Your task to perform on an android device: uninstall "Cash App" Image 0: 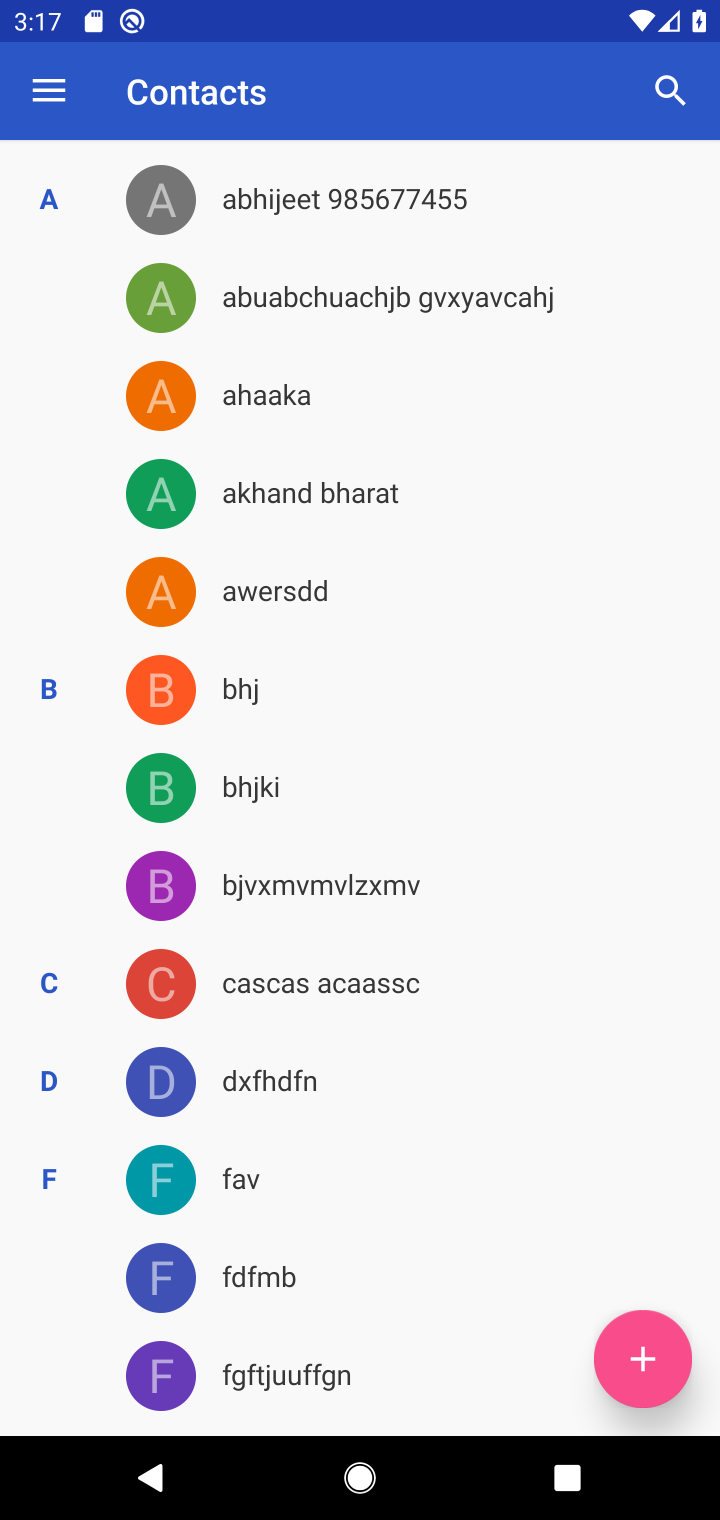
Step 0: press home button
Your task to perform on an android device: uninstall "Cash App" Image 1: 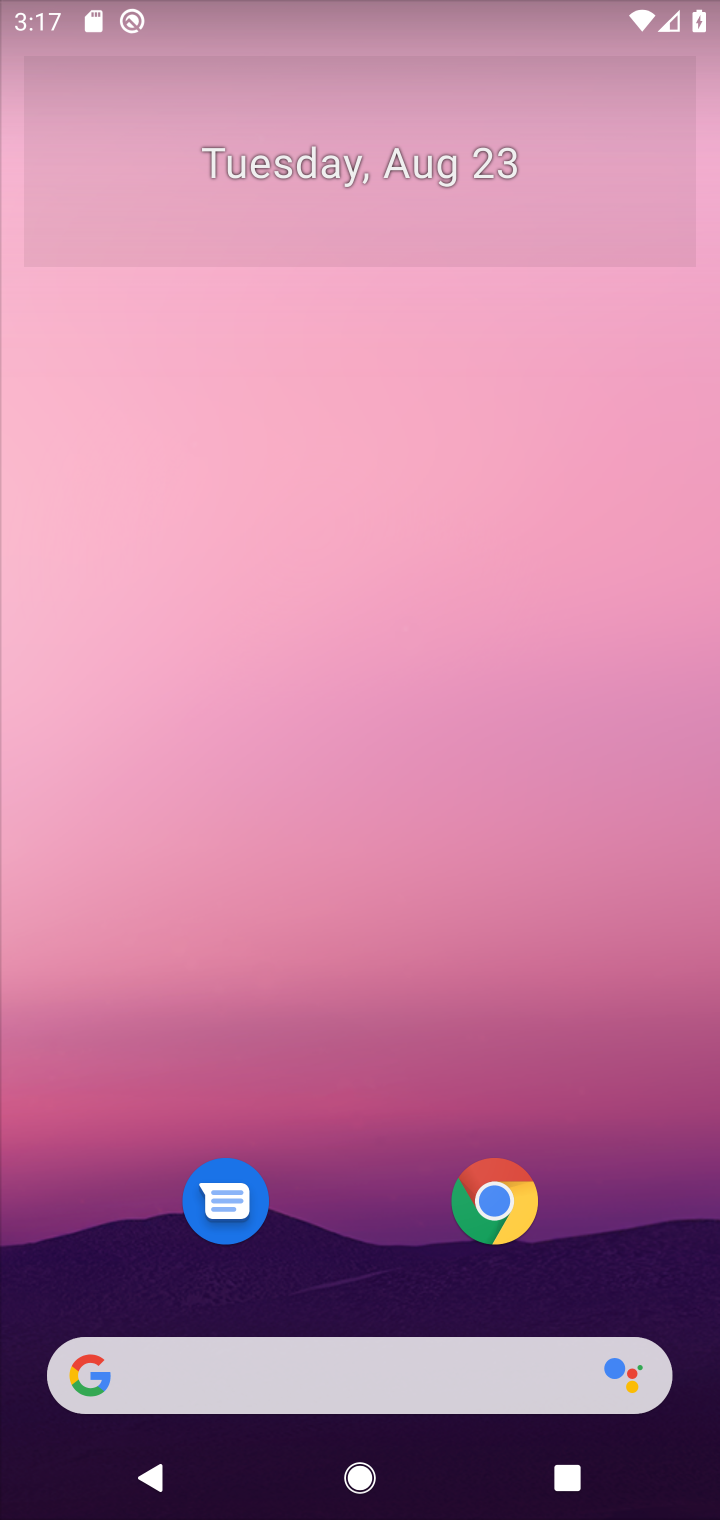
Step 1: drag from (659, 1302) to (525, 231)
Your task to perform on an android device: uninstall "Cash App" Image 2: 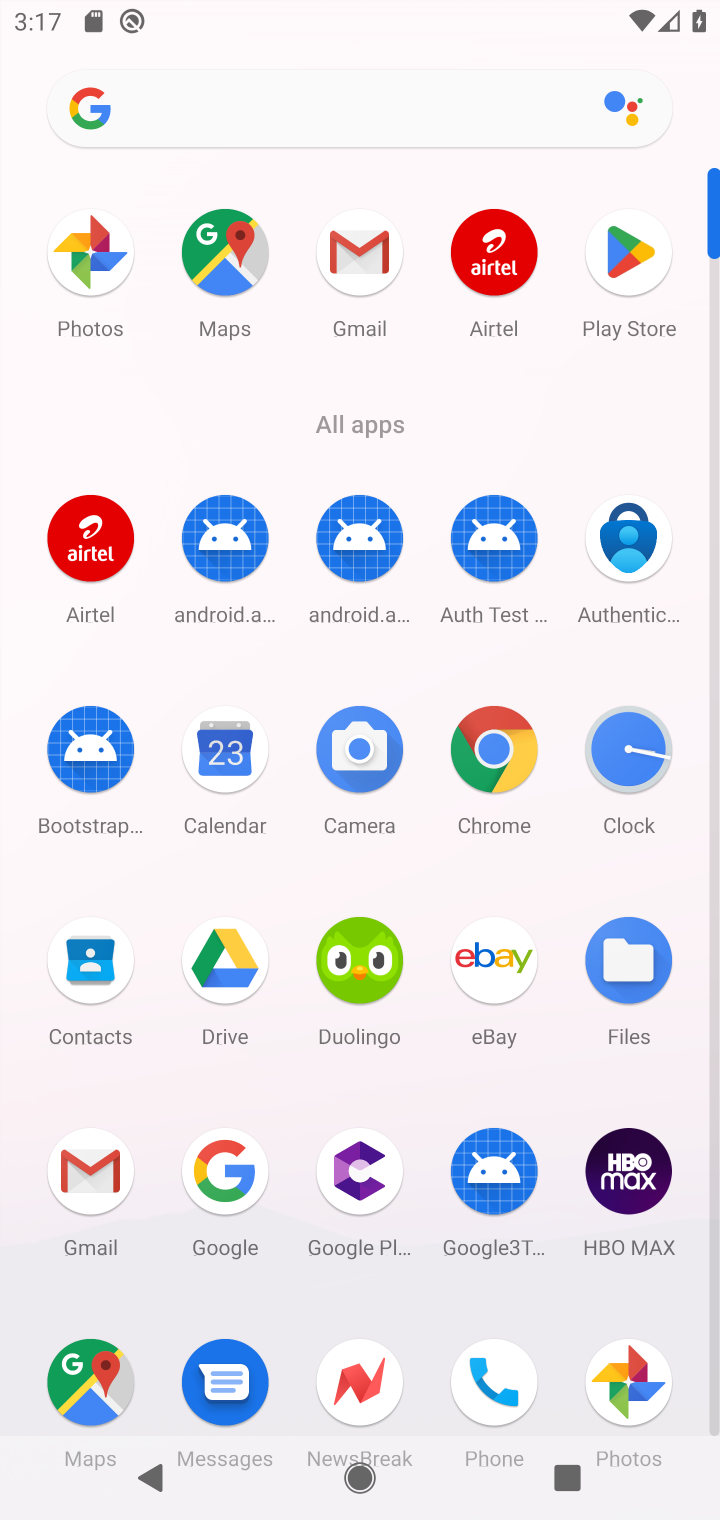
Step 2: click (715, 1362)
Your task to perform on an android device: uninstall "Cash App" Image 3: 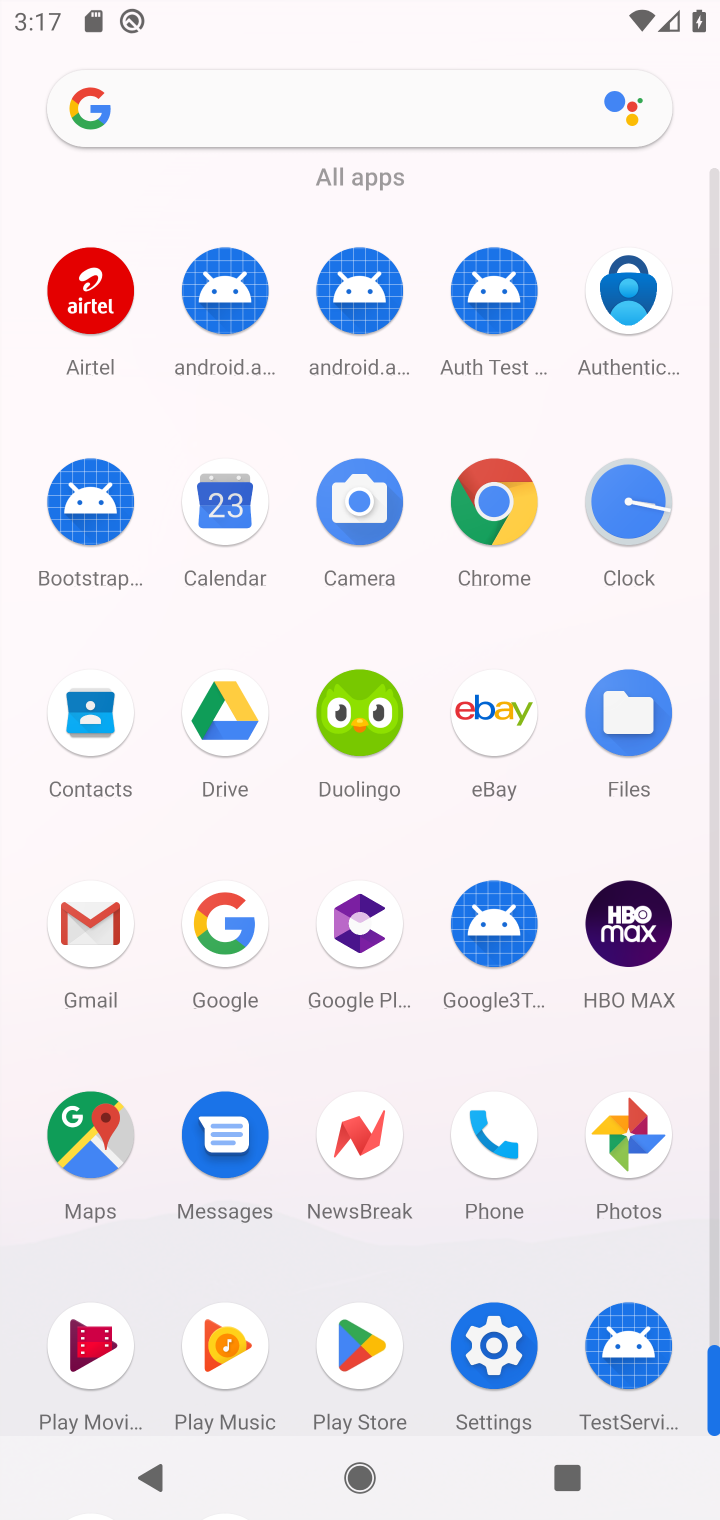
Step 3: click (357, 1353)
Your task to perform on an android device: uninstall "Cash App" Image 4: 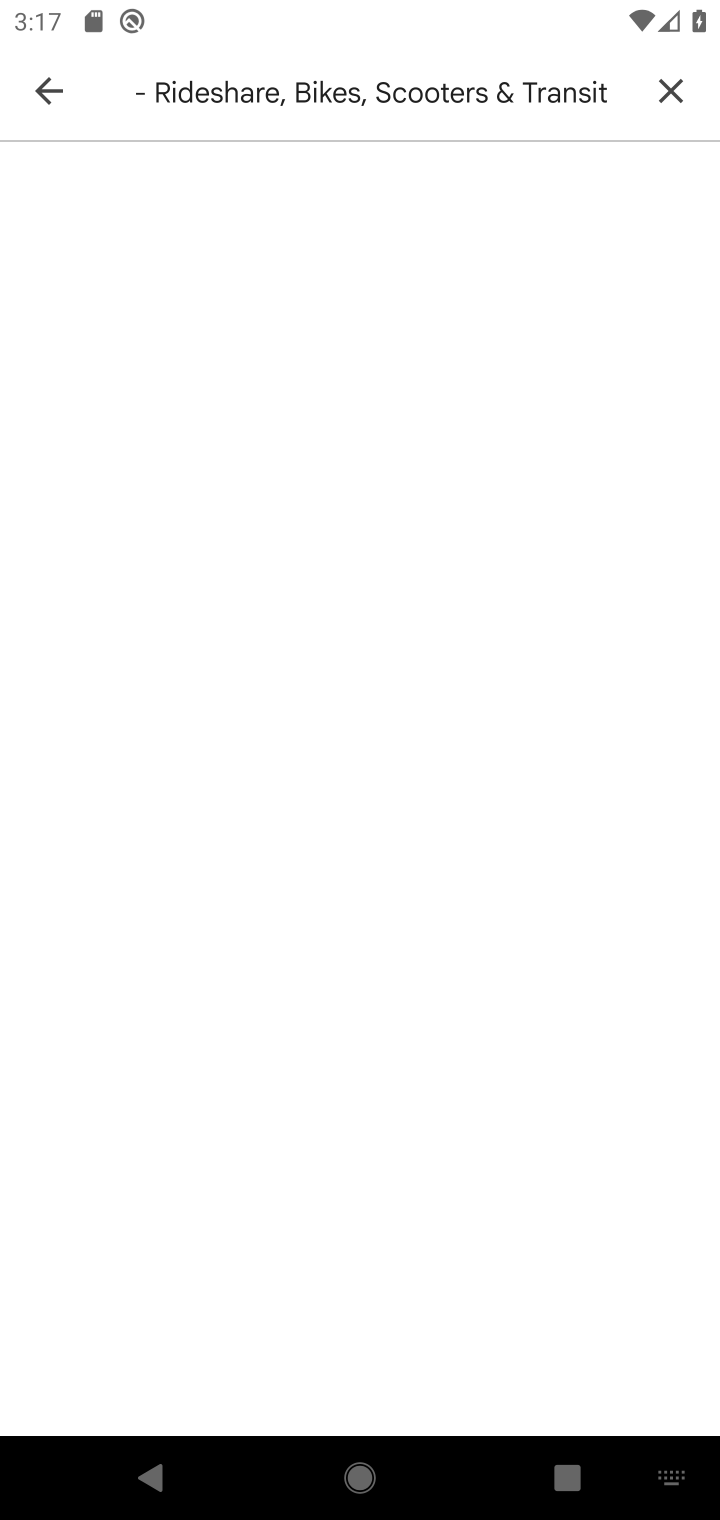
Step 4: click (674, 88)
Your task to perform on an android device: uninstall "Cash App" Image 5: 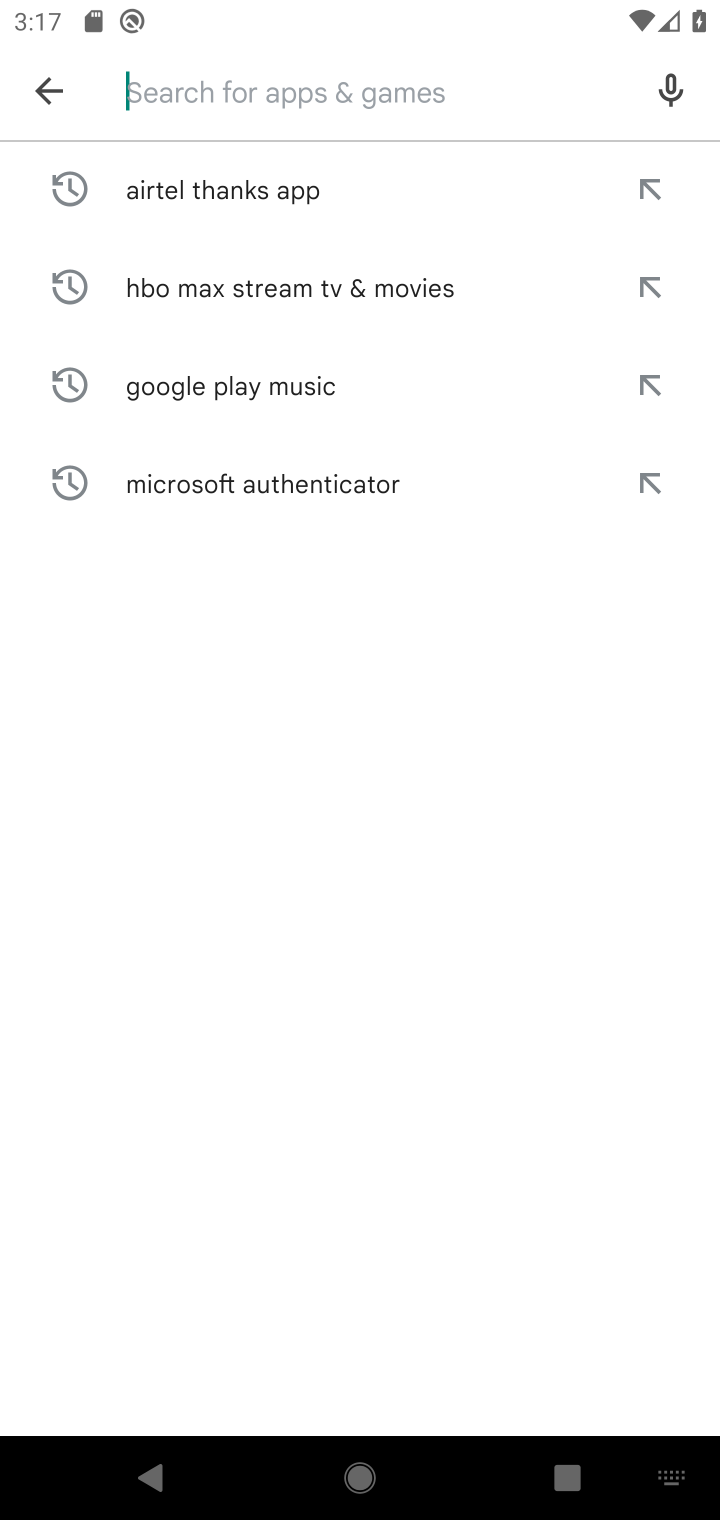
Step 5: type "Cash App"
Your task to perform on an android device: uninstall "Cash App" Image 6: 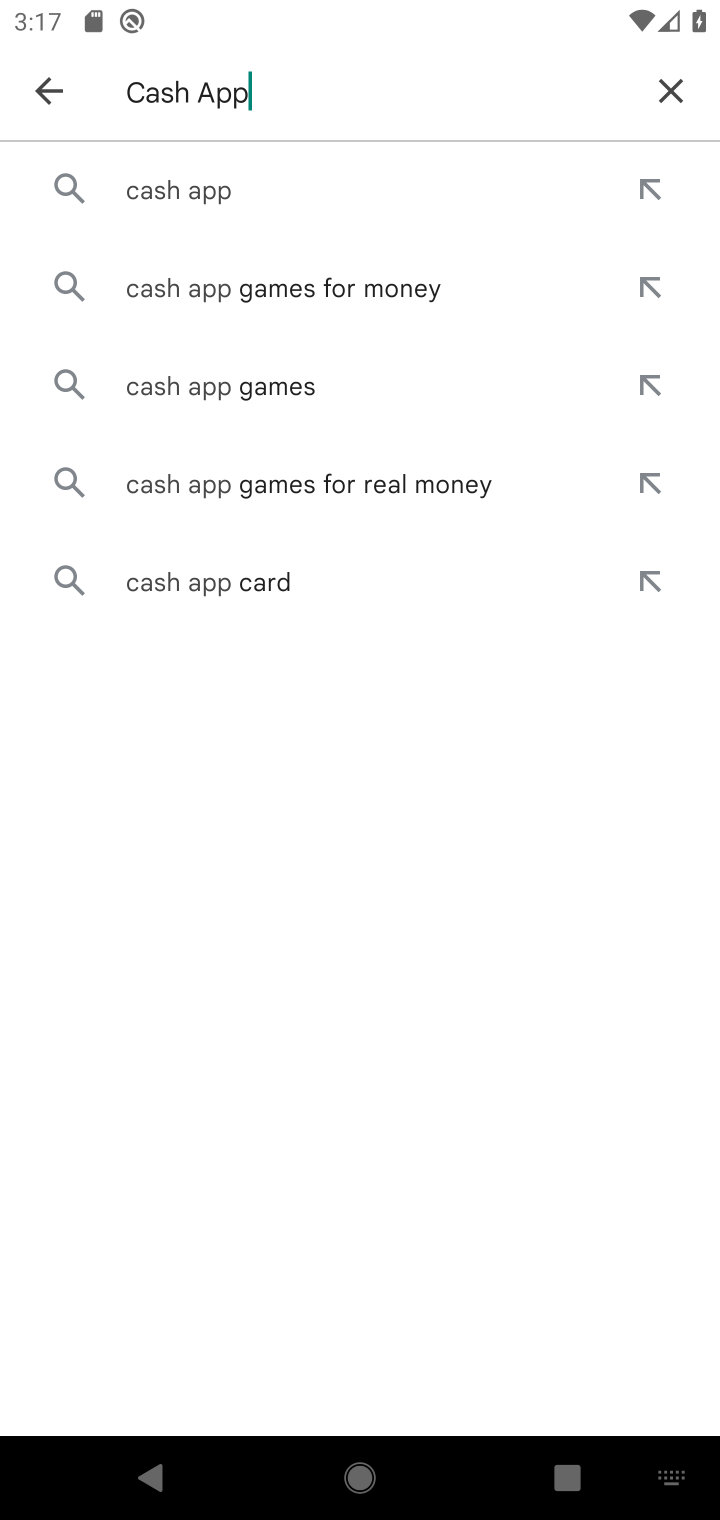
Step 6: click (208, 187)
Your task to perform on an android device: uninstall "Cash App" Image 7: 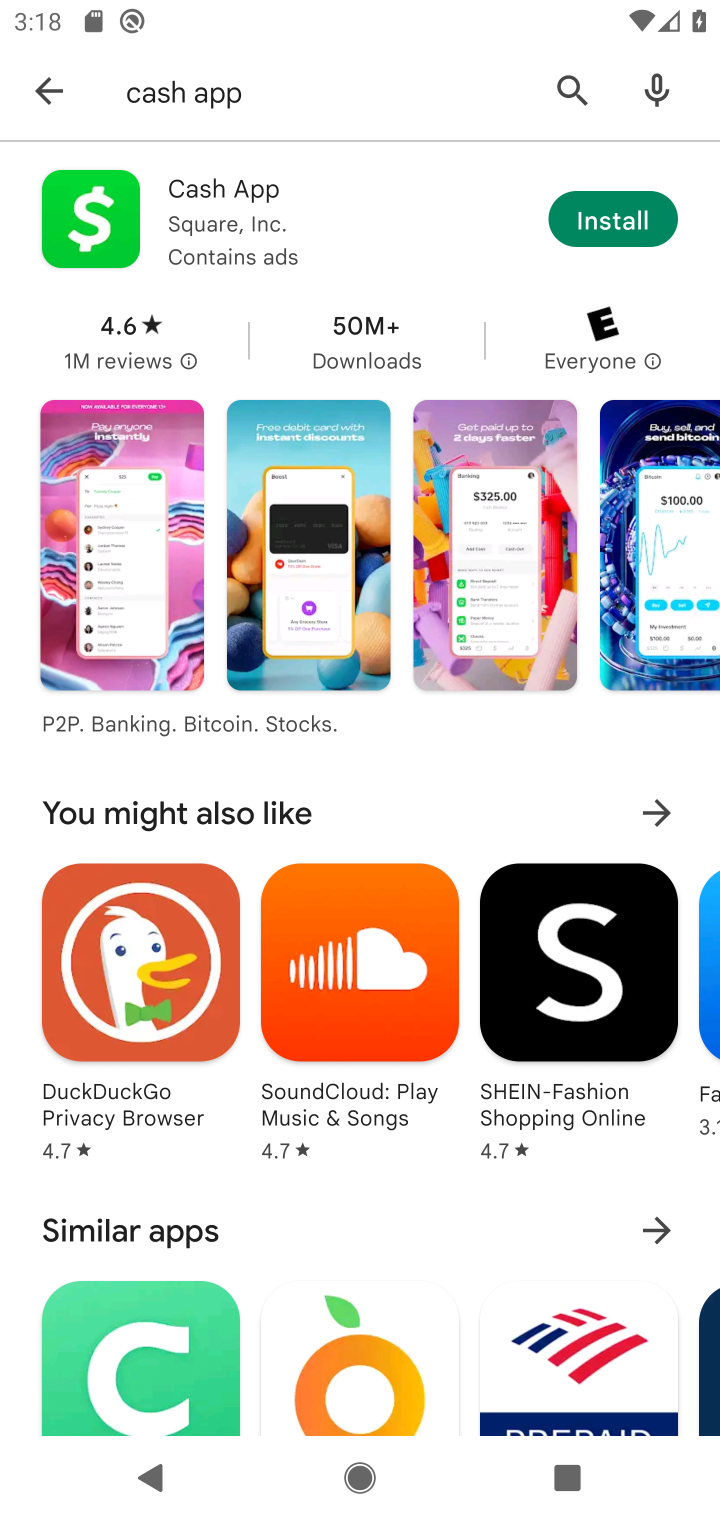
Step 7: click (205, 195)
Your task to perform on an android device: uninstall "Cash App" Image 8: 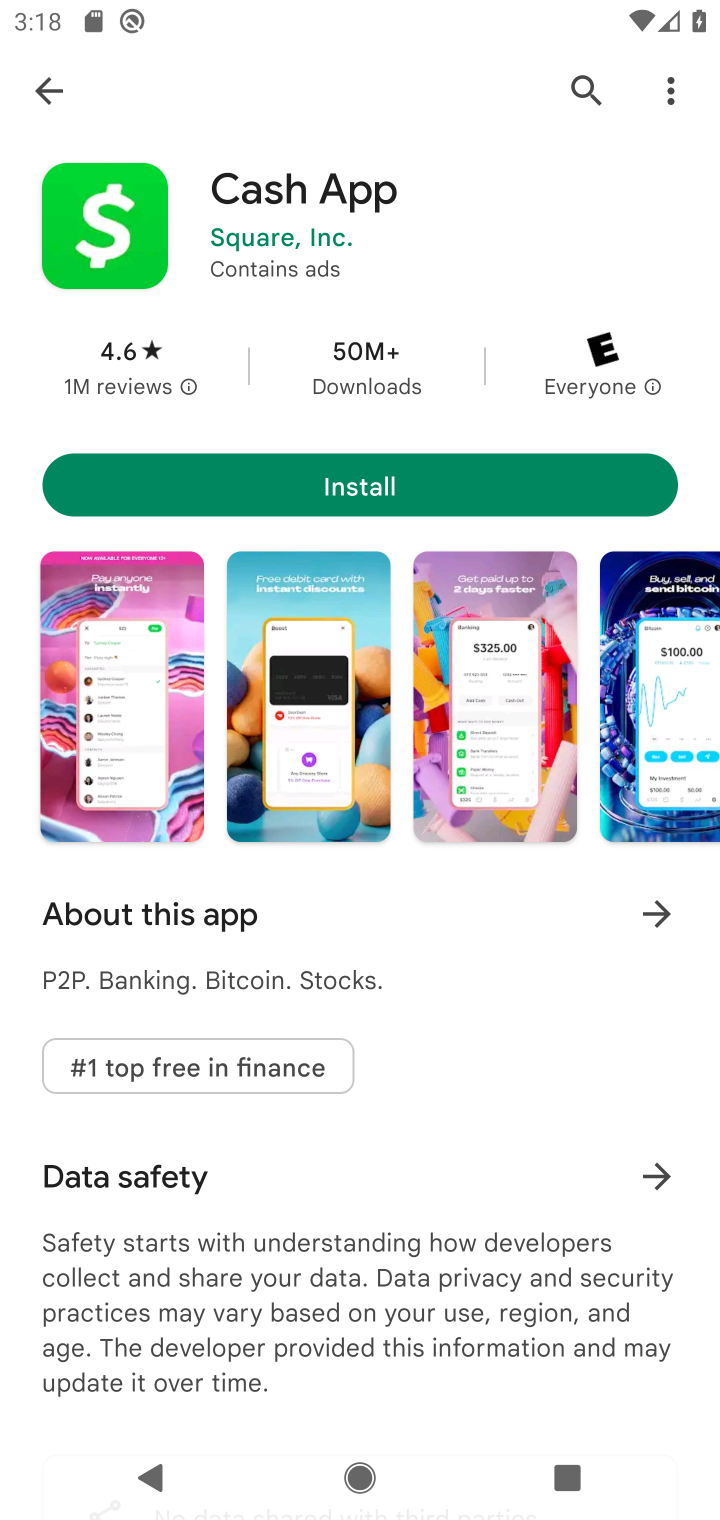
Step 8: task complete